Your task to perform on an android device: delete the emails in spam in the gmail app Image 0: 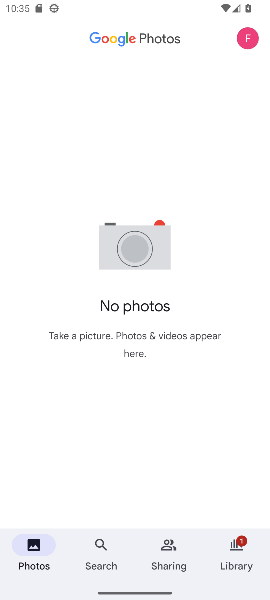
Step 0: drag from (136, 0) to (97, 450)
Your task to perform on an android device: delete the emails in spam in the gmail app Image 1: 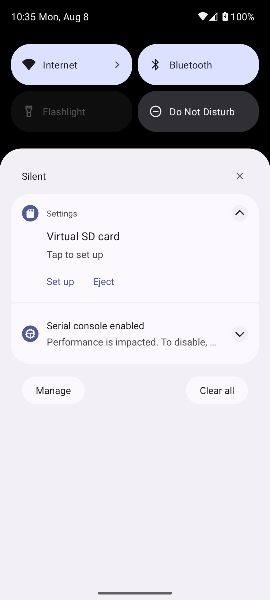
Step 1: press home button
Your task to perform on an android device: delete the emails in spam in the gmail app Image 2: 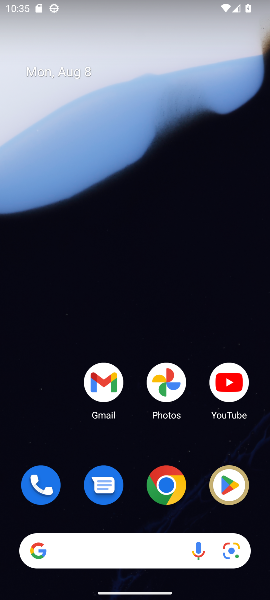
Step 2: drag from (146, 456) to (188, 9)
Your task to perform on an android device: delete the emails in spam in the gmail app Image 3: 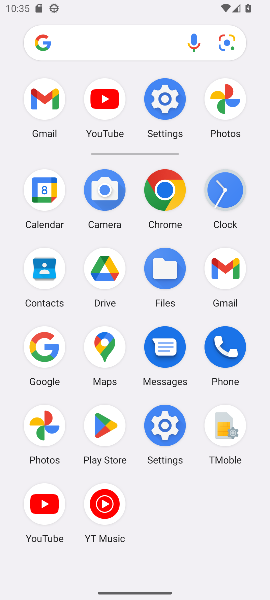
Step 3: click (225, 260)
Your task to perform on an android device: delete the emails in spam in the gmail app Image 4: 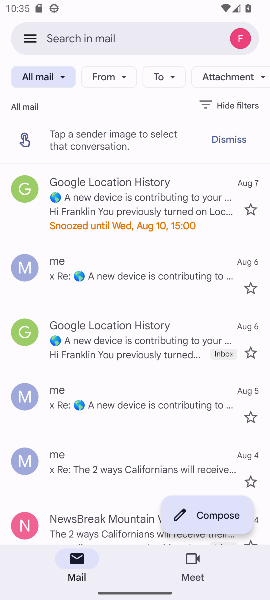
Step 4: click (29, 36)
Your task to perform on an android device: delete the emails in spam in the gmail app Image 5: 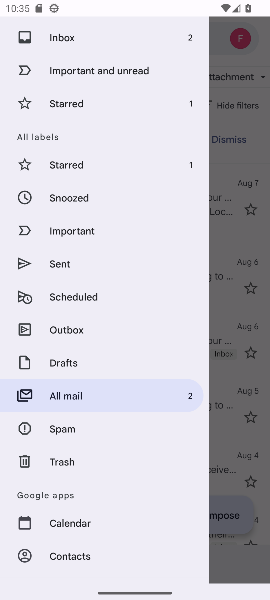
Step 5: click (51, 427)
Your task to perform on an android device: delete the emails in spam in the gmail app Image 6: 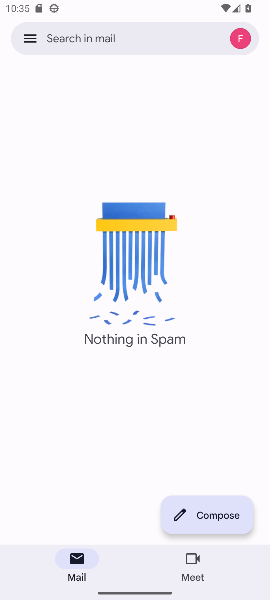
Step 6: task complete